Your task to perform on an android device: check storage Image 0: 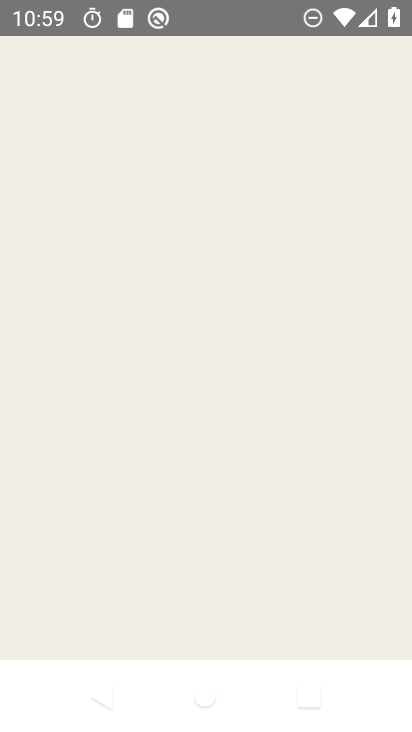
Step 0: press home button
Your task to perform on an android device: check storage Image 1: 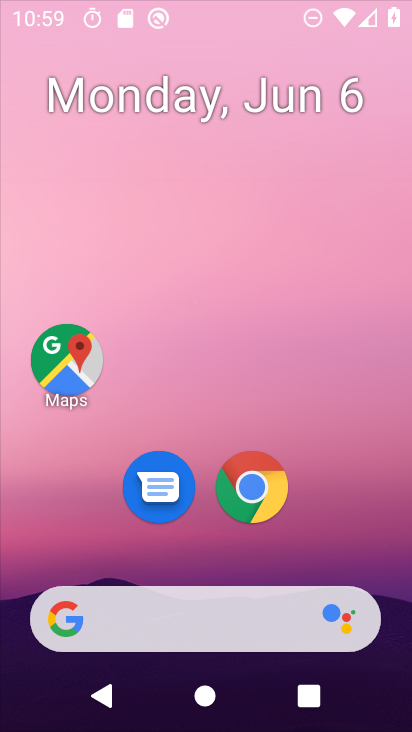
Step 1: drag from (354, 377) to (233, 56)
Your task to perform on an android device: check storage Image 2: 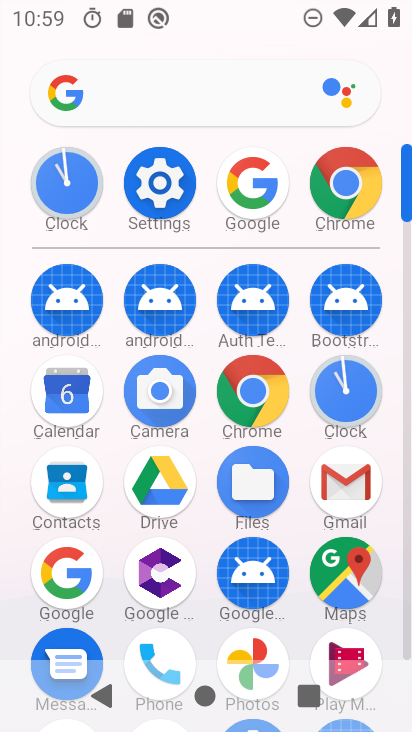
Step 2: click (176, 187)
Your task to perform on an android device: check storage Image 3: 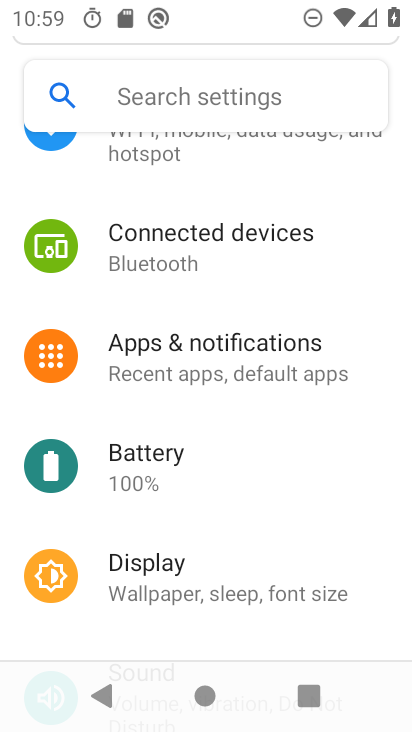
Step 3: drag from (186, 579) to (226, 430)
Your task to perform on an android device: check storage Image 4: 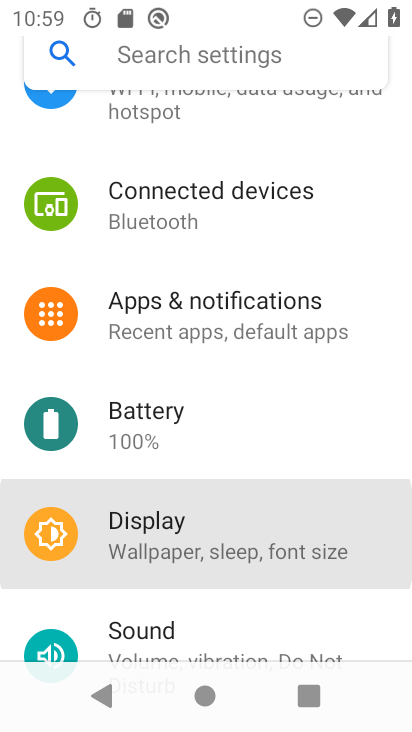
Step 4: click (236, 311)
Your task to perform on an android device: check storage Image 5: 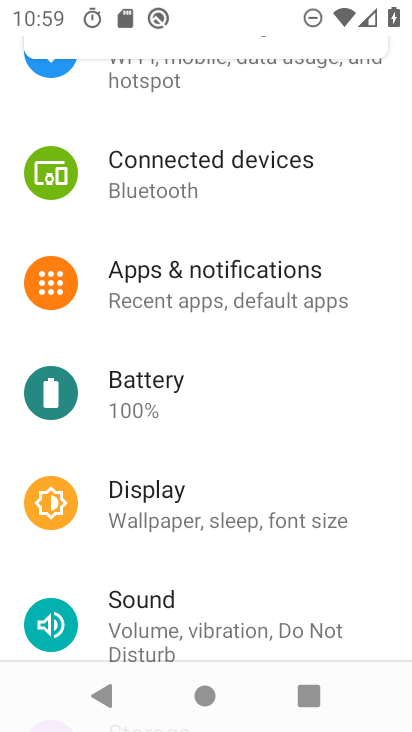
Step 5: click (231, 208)
Your task to perform on an android device: check storage Image 6: 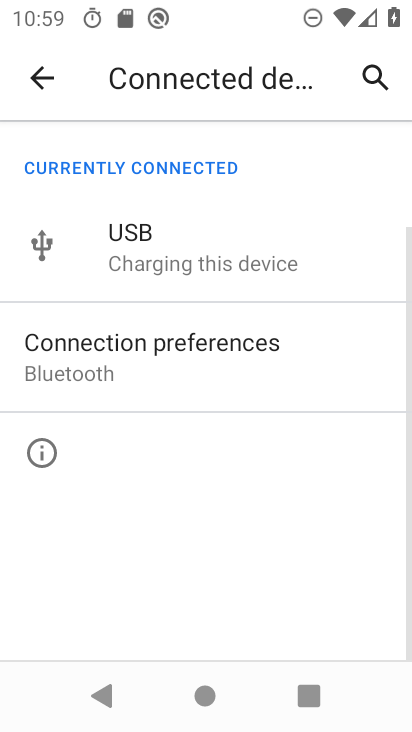
Step 6: press back button
Your task to perform on an android device: check storage Image 7: 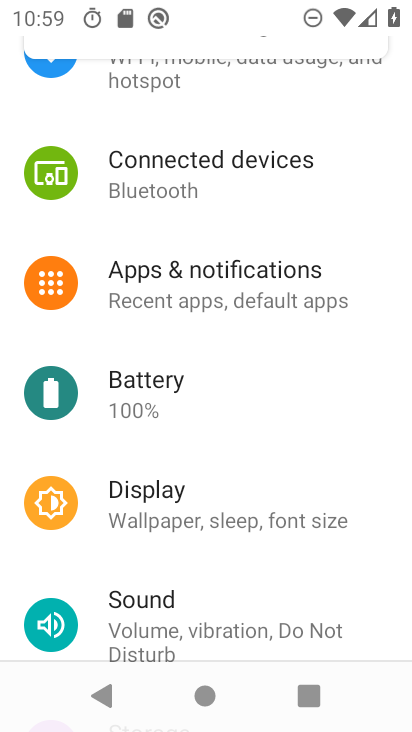
Step 7: drag from (174, 624) to (227, 163)
Your task to perform on an android device: check storage Image 8: 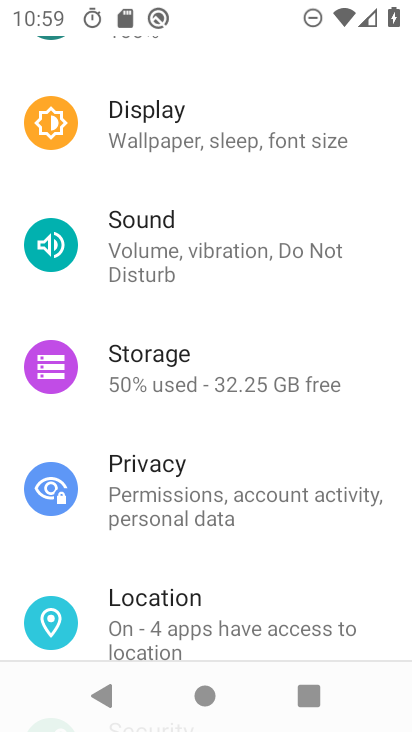
Step 8: click (180, 366)
Your task to perform on an android device: check storage Image 9: 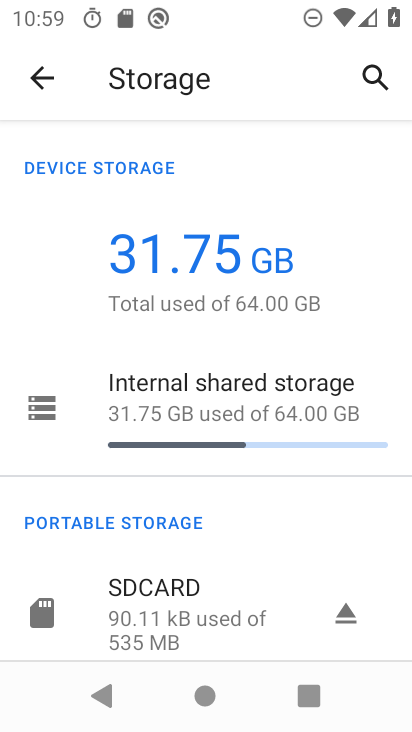
Step 9: click (196, 398)
Your task to perform on an android device: check storage Image 10: 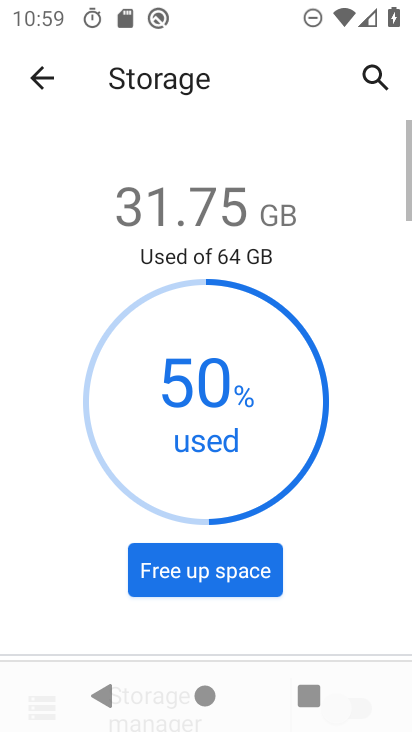
Step 10: task complete